Your task to perform on an android device: Open privacy settings Image 0: 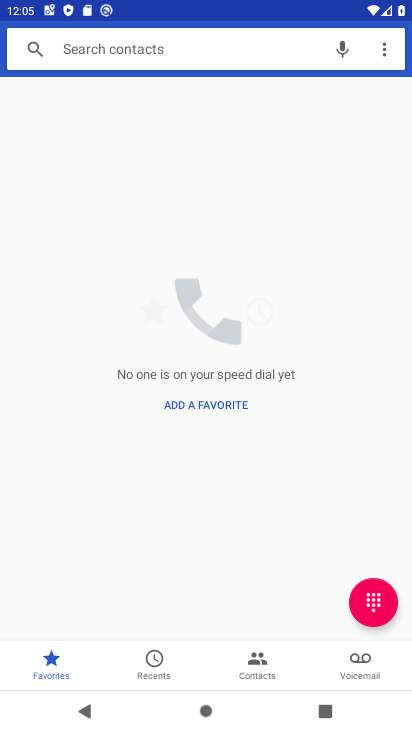
Step 0: press home button
Your task to perform on an android device: Open privacy settings Image 1: 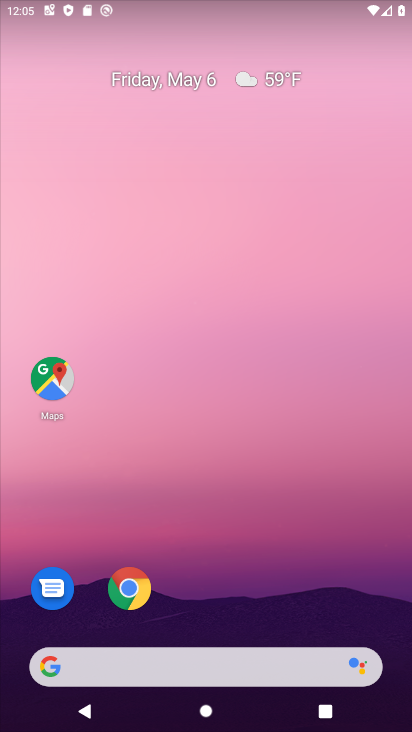
Step 1: drag from (259, 495) to (275, 21)
Your task to perform on an android device: Open privacy settings Image 2: 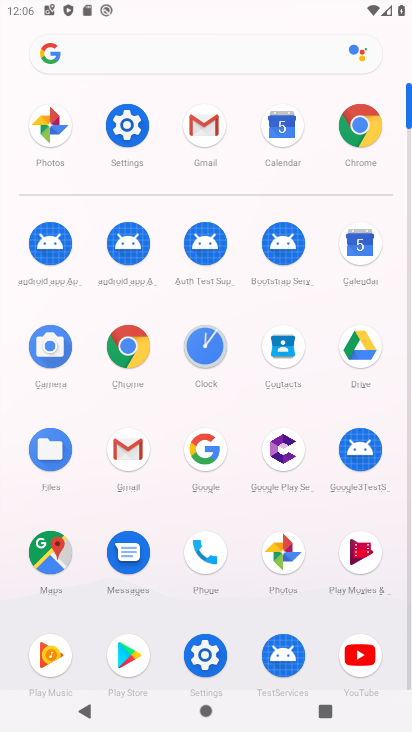
Step 2: click (131, 134)
Your task to perform on an android device: Open privacy settings Image 3: 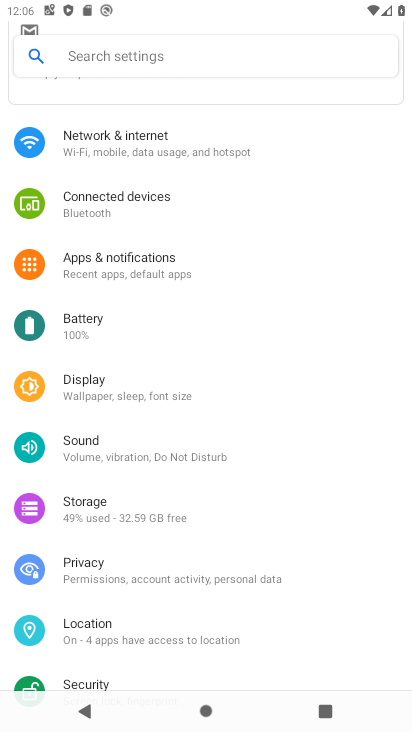
Step 3: click (163, 575)
Your task to perform on an android device: Open privacy settings Image 4: 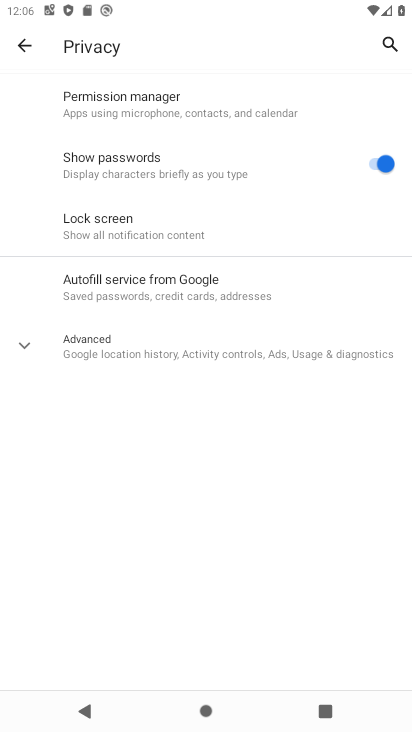
Step 4: task complete